Your task to perform on an android device: clear all cookies in the chrome app Image 0: 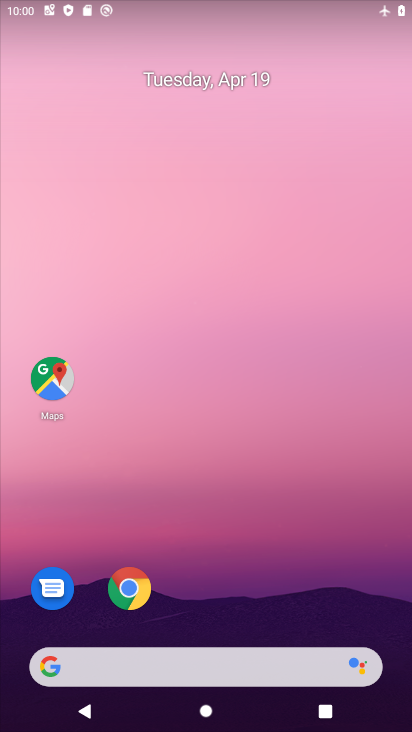
Step 0: drag from (174, 623) to (213, 154)
Your task to perform on an android device: clear all cookies in the chrome app Image 1: 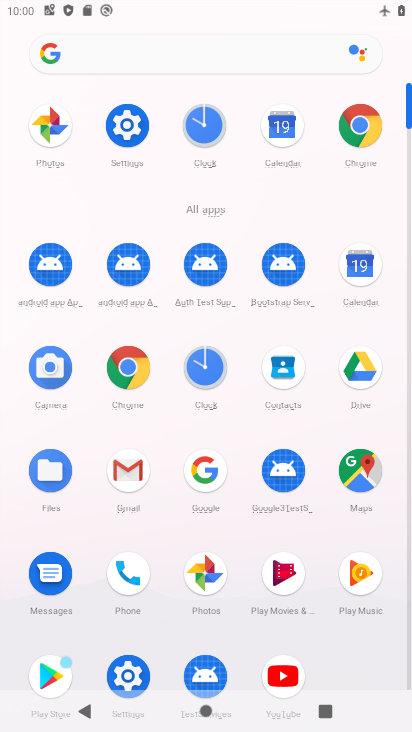
Step 1: click (129, 371)
Your task to perform on an android device: clear all cookies in the chrome app Image 2: 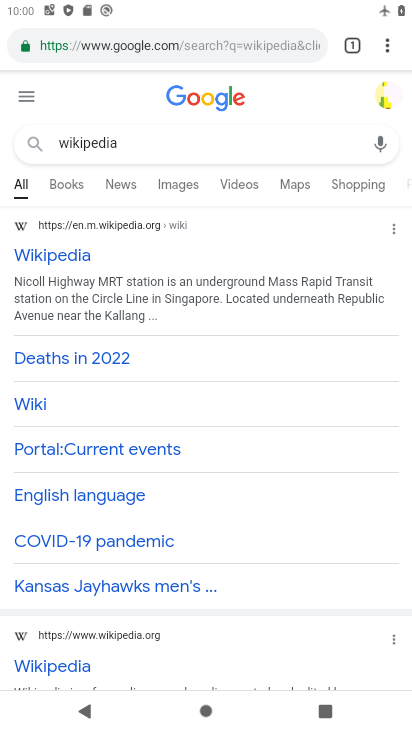
Step 2: click (386, 47)
Your task to perform on an android device: clear all cookies in the chrome app Image 3: 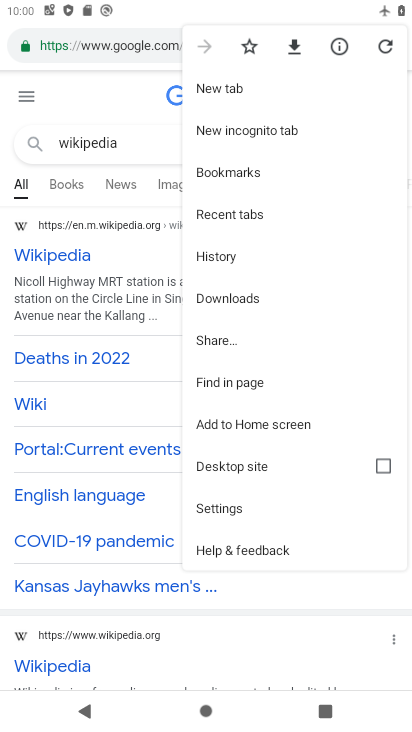
Step 3: click (208, 263)
Your task to perform on an android device: clear all cookies in the chrome app Image 4: 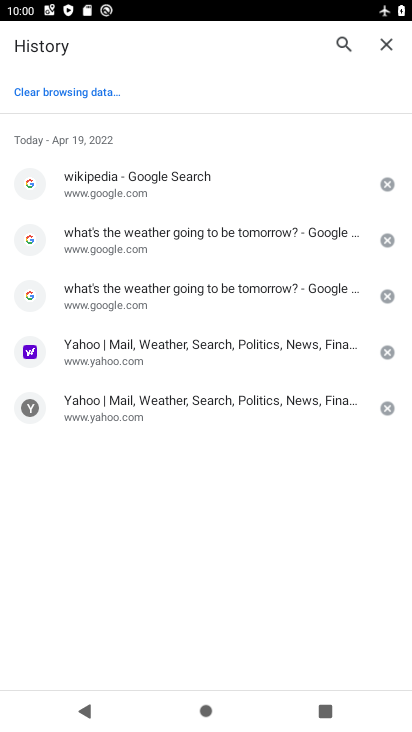
Step 4: click (46, 102)
Your task to perform on an android device: clear all cookies in the chrome app Image 5: 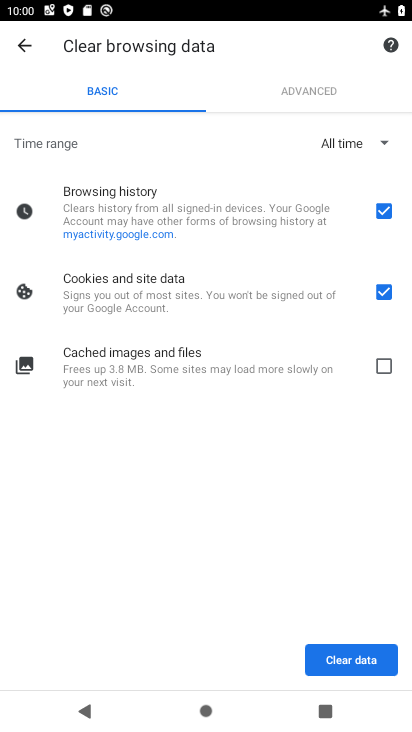
Step 5: click (382, 205)
Your task to perform on an android device: clear all cookies in the chrome app Image 6: 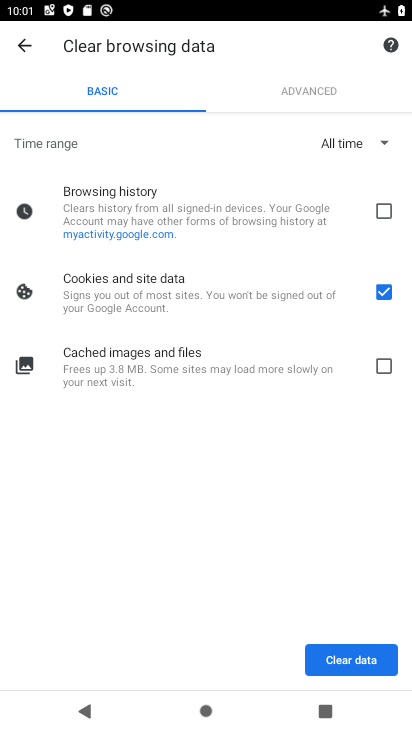
Step 6: click (357, 661)
Your task to perform on an android device: clear all cookies in the chrome app Image 7: 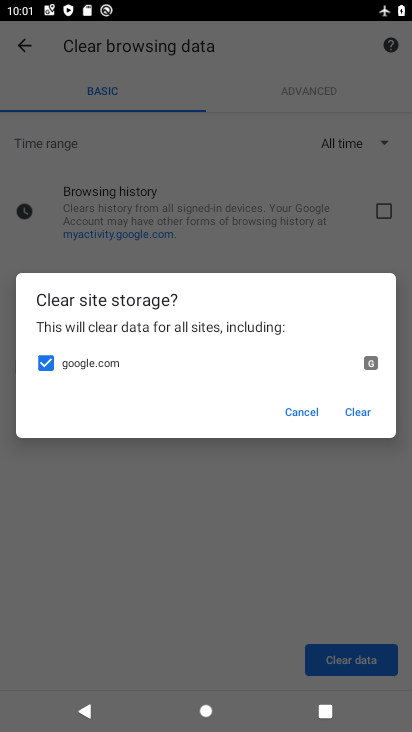
Step 7: click (351, 419)
Your task to perform on an android device: clear all cookies in the chrome app Image 8: 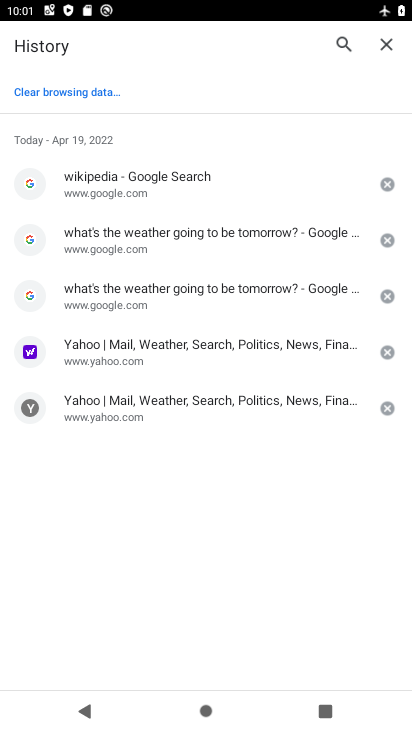
Step 8: task complete